Your task to perform on an android device: turn notification dots off Image 0: 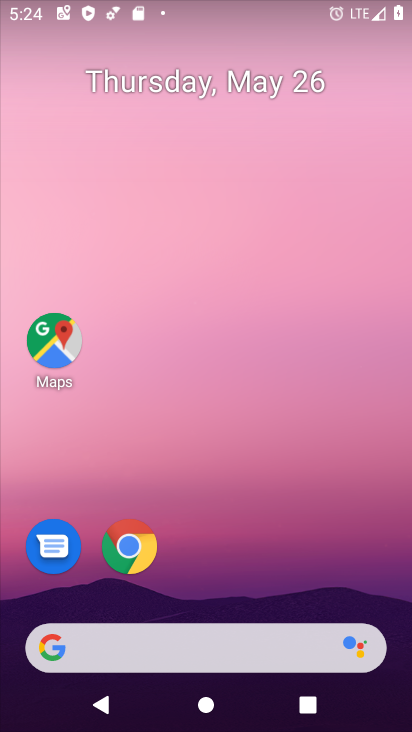
Step 0: drag from (259, 536) to (256, 90)
Your task to perform on an android device: turn notification dots off Image 1: 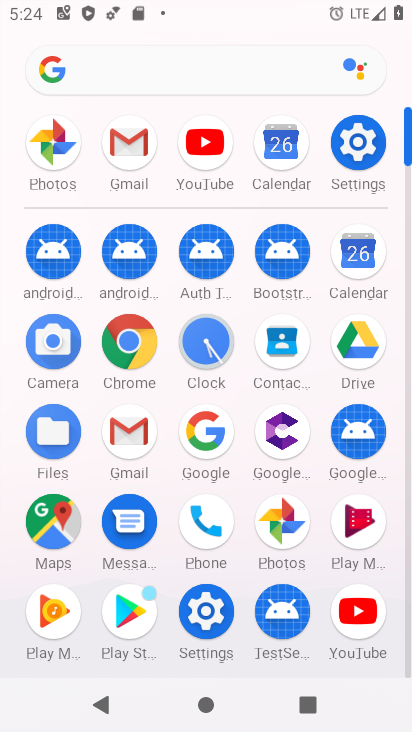
Step 1: click (347, 139)
Your task to perform on an android device: turn notification dots off Image 2: 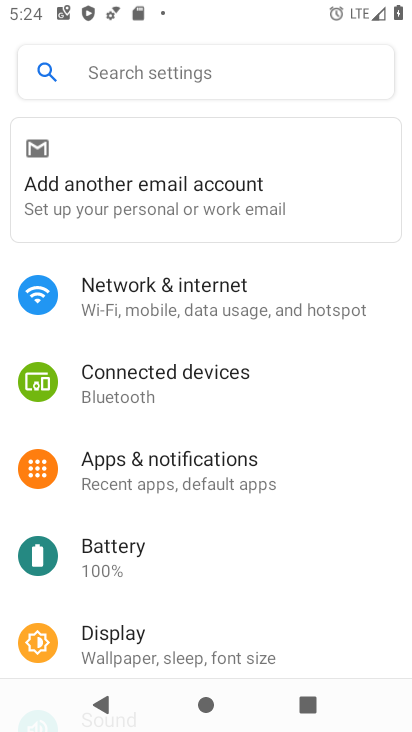
Step 2: click (196, 447)
Your task to perform on an android device: turn notification dots off Image 3: 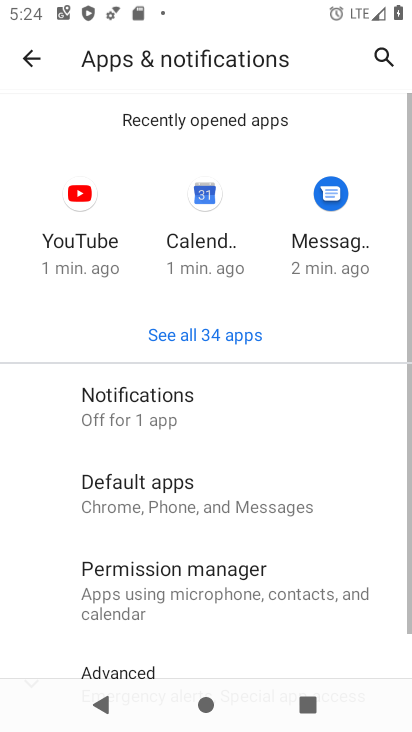
Step 3: drag from (167, 597) to (205, 334)
Your task to perform on an android device: turn notification dots off Image 4: 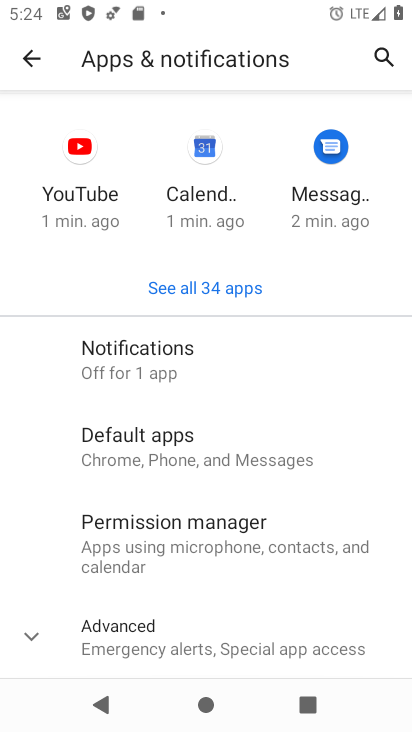
Step 4: click (108, 344)
Your task to perform on an android device: turn notification dots off Image 5: 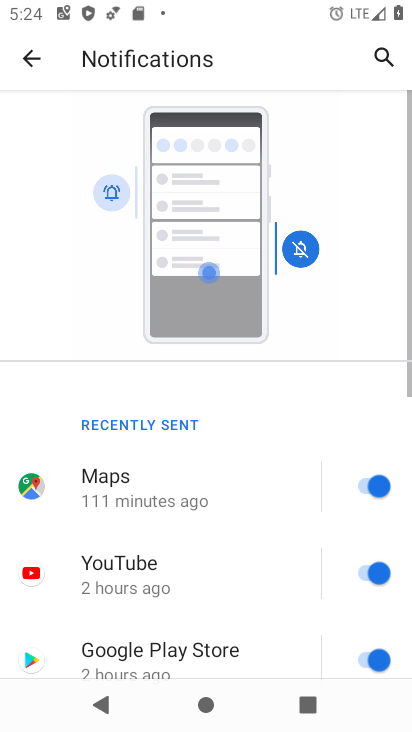
Step 5: drag from (223, 624) to (221, 111)
Your task to perform on an android device: turn notification dots off Image 6: 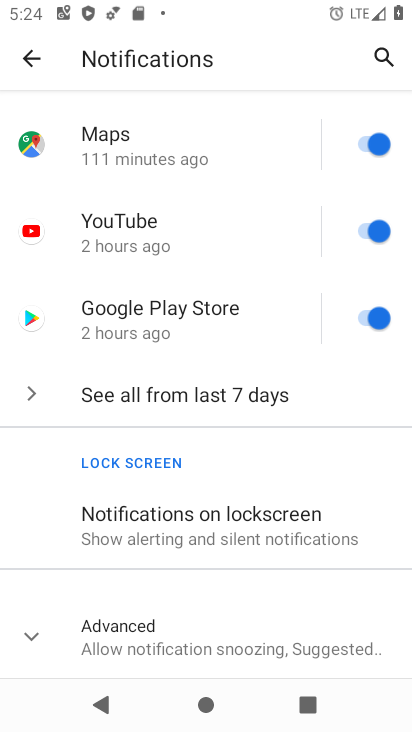
Step 6: click (196, 658)
Your task to perform on an android device: turn notification dots off Image 7: 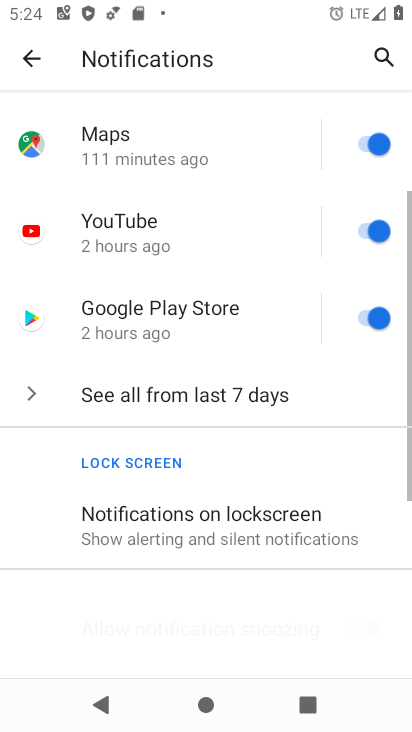
Step 7: drag from (202, 626) to (234, 148)
Your task to perform on an android device: turn notification dots off Image 8: 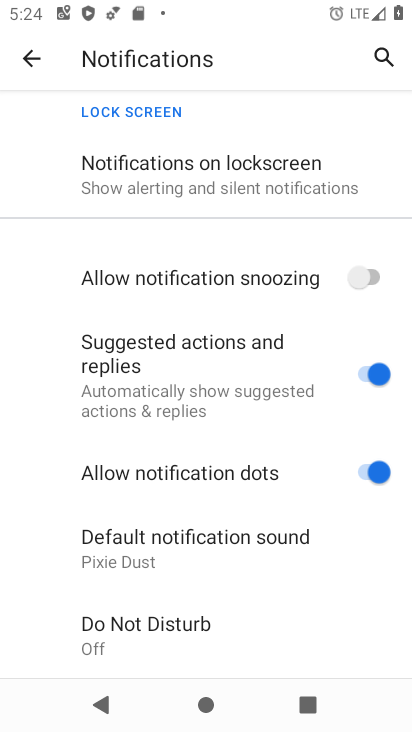
Step 8: click (374, 469)
Your task to perform on an android device: turn notification dots off Image 9: 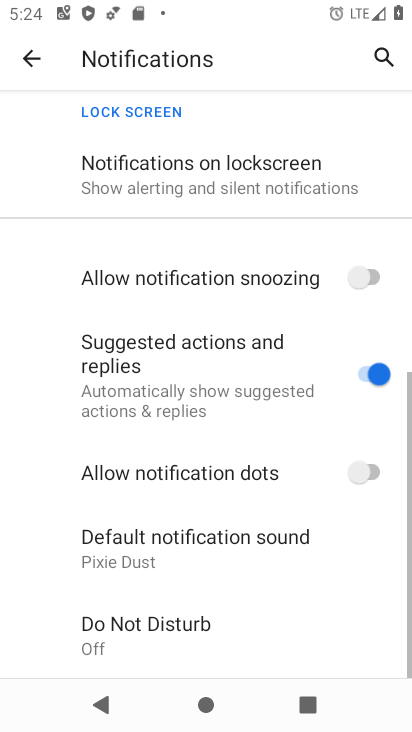
Step 9: task complete